Your task to perform on an android device: turn off location Image 0: 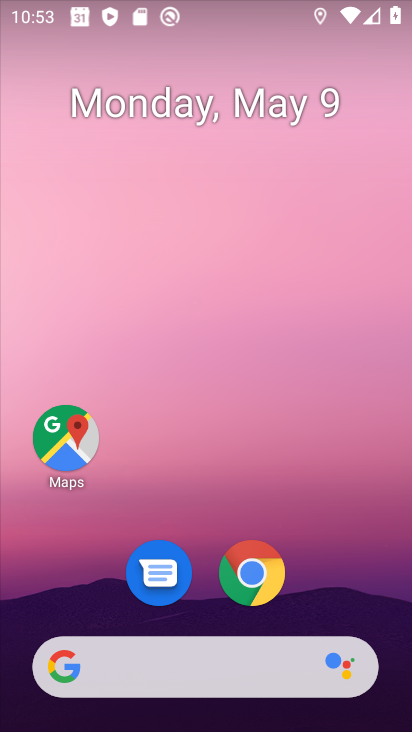
Step 0: drag from (222, 612) to (230, 206)
Your task to perform on an android device: turn off location Image 1: 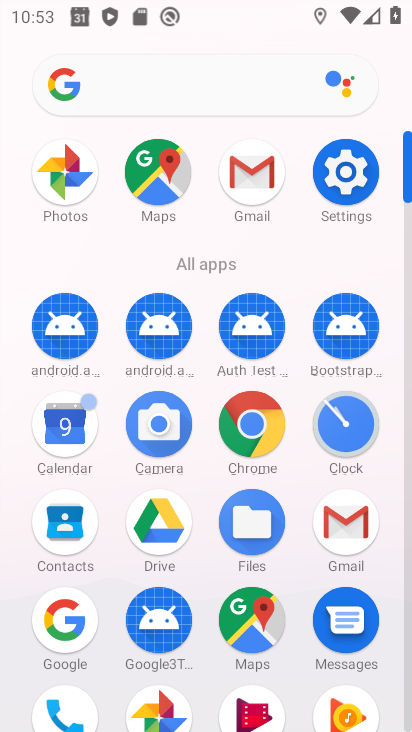
Step 1: drag from (205, 667) to (222, 195)
Your task to perform on an android device: turn off location Image 2: 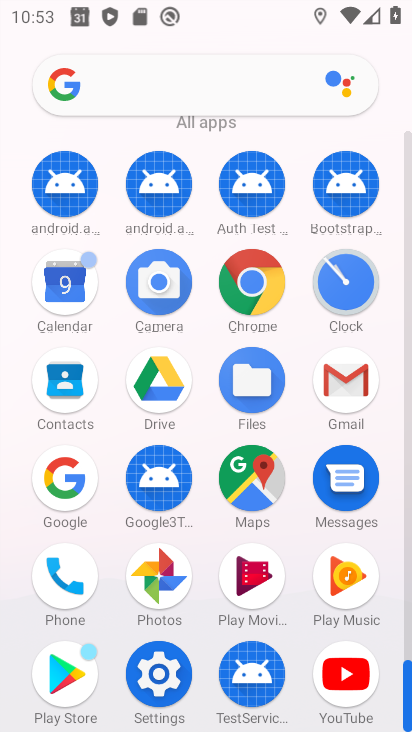
Step 2: click (168, 672)
Your task to perform on an android device: turn off location Image 3: 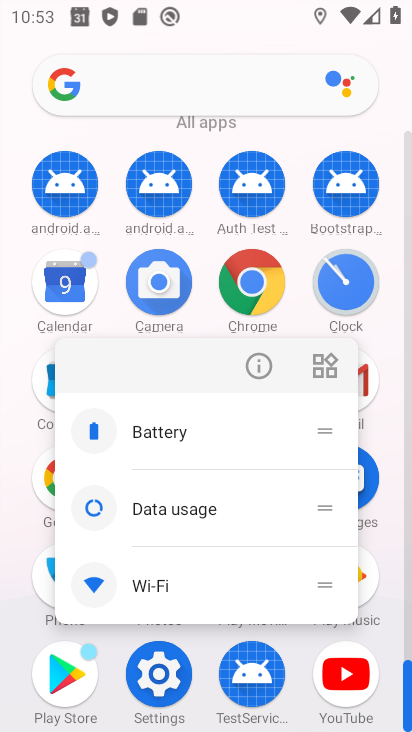
Step 3: click (267, 367)
Your task to perform on an android device: turn off location Image 4: 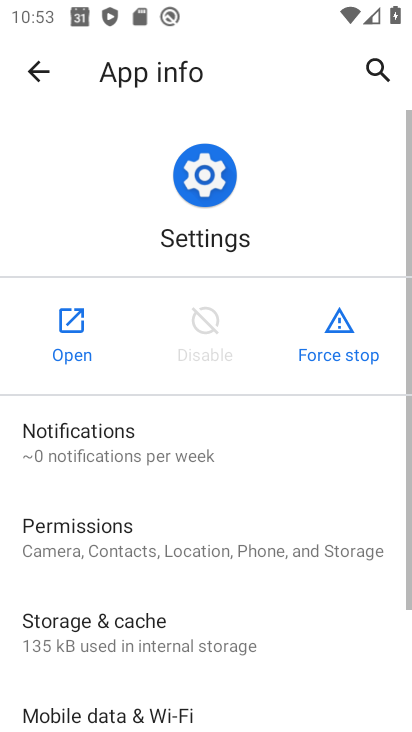
Step 4: click (77, 333)
Your task to perform on an android device: turn off location Image 5: 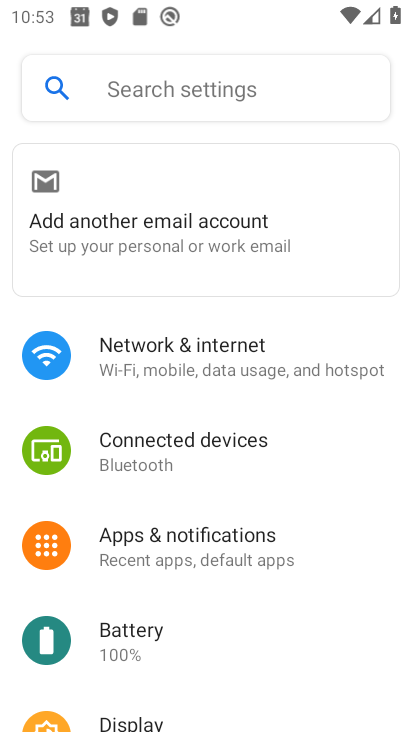
Step 5: drag from (210, 657) to (261, 205)
Your task to perform on an android device: turn off location Image 6: 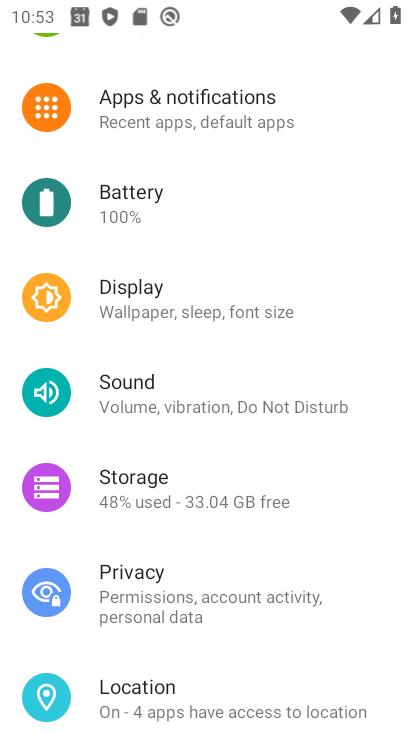
Step 6: drag from (237, 617) to (294, 216)
Your task to perform on an android device: turn off location Image 7: 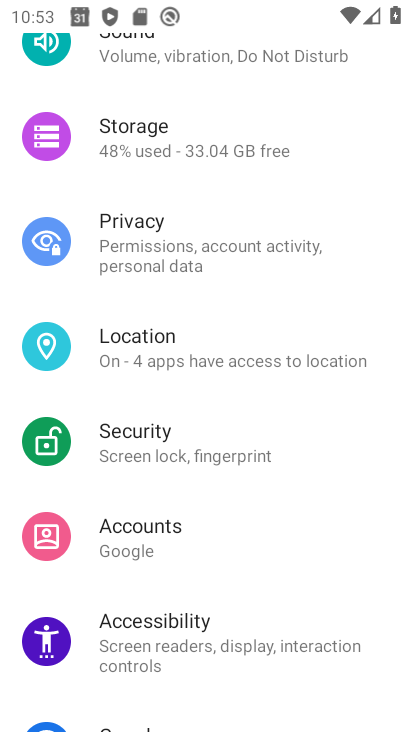
Step 7: click (174, 352)
Your task to perform on an android device: turn off location Image 8: 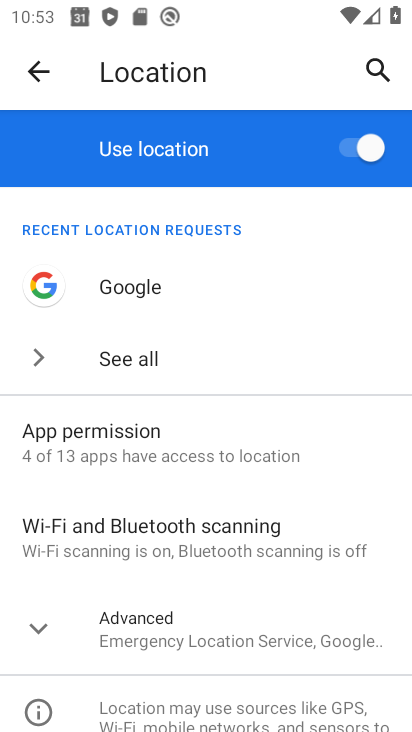
Step 8: drag from (196, 623) to (213, 323)
Your task to perform on an android device: turn off location Image 9: 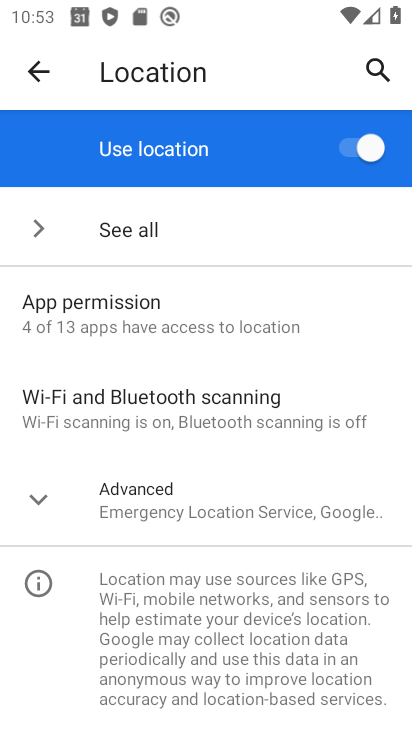
Step 9: click (373, 142)
Your task to perform on an android device: turn off location Image 10: 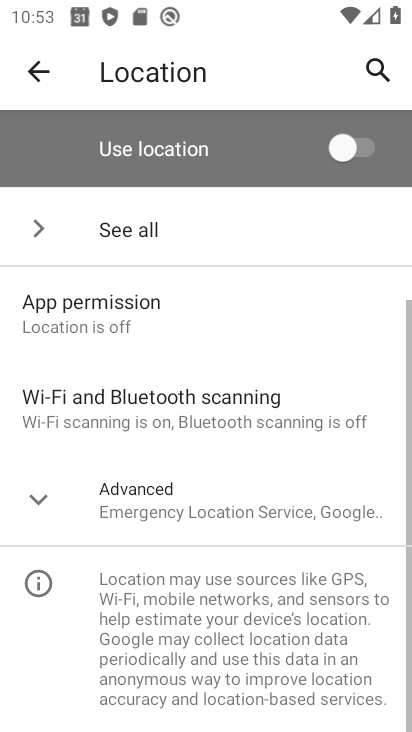
Step 10: task complete